Your task to perform on an android device: turn smart compose on in the gmail app Image 0: 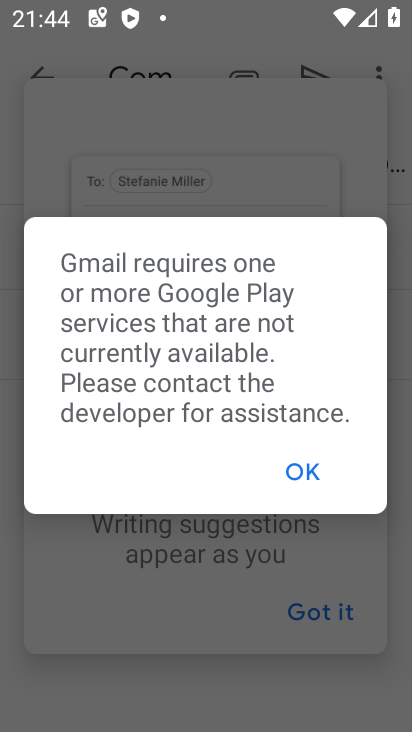
Step 0: press home button
Your task to perform on an android device: turn smart compose on in the gmail app Image 1: 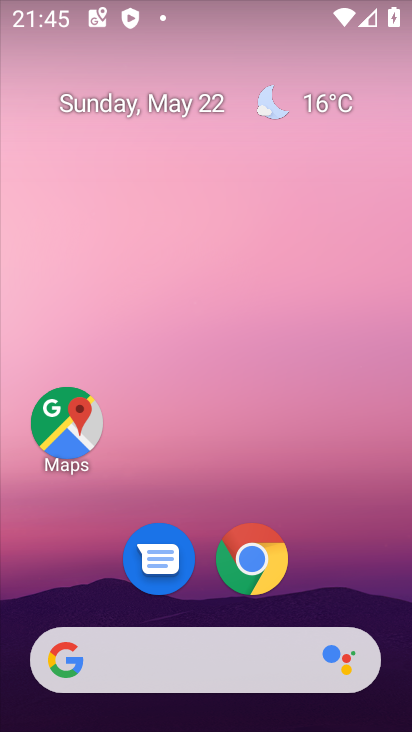
Step 1: drag from (301, 689) to (282, 221)
Your task to perform on an android device: turn smart compose on in the gmail app Image 2: 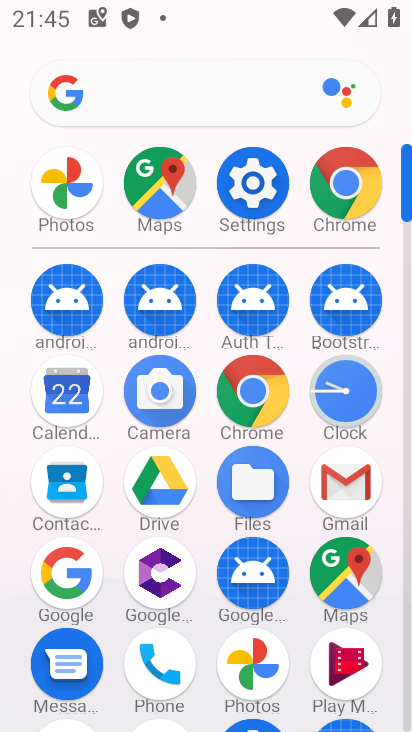
Step 2: click (350, 472)
Your task to perform on an android device: turn smart compose on in the gmail app Image 3: 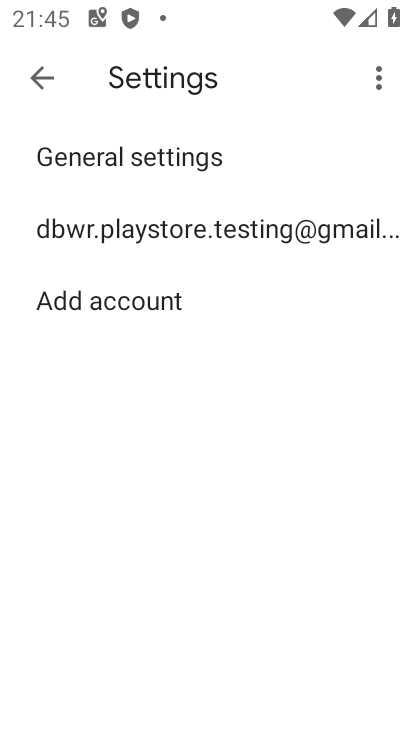
Step 3: click (108, 226)
Your task to perform on an android device: turn smart compose on in the gmail app Image 4: 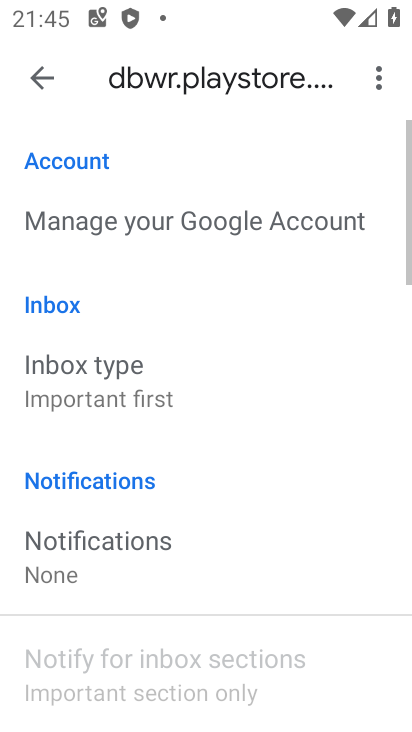
Step 4: drag from (133, 487) to (160, 135)
Your task to perform on an android device: turn smart compose on in the gmail app Image 5: 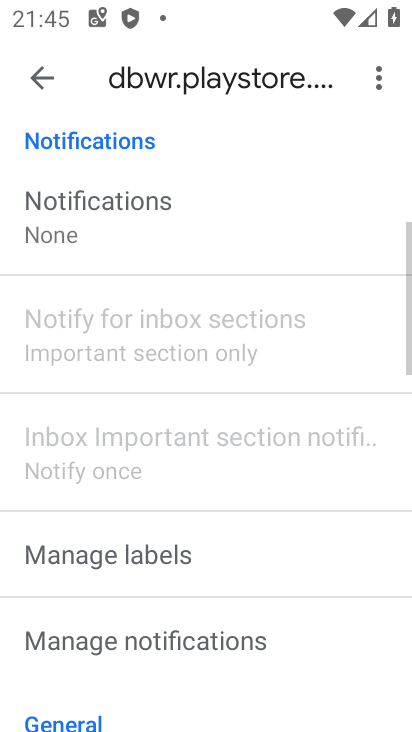
Step 5: drag from (132, 502) to (125, 196)
Your task to perform on an android device: turn smart compose on in the gmail app Image 6: 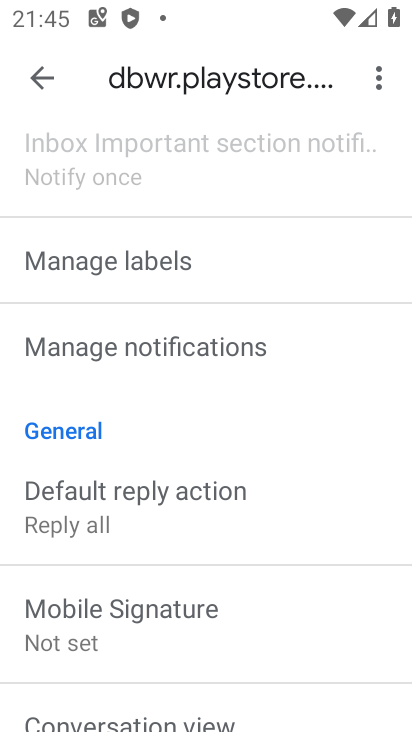
Step 6: drag from (153, 496) to (145, 118)
Your task to perform on an android device: turn smart compose on in the gmail app Image 7: 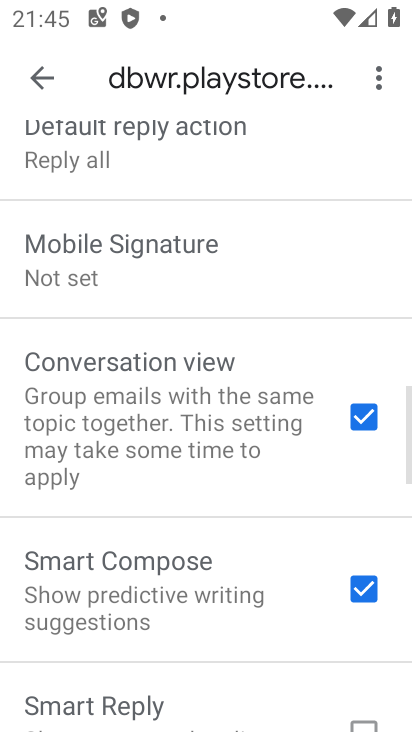
Step 7: drag from (183, 593) to (206, 191)
Your task to perform on an android device: turn smart compose on in the gmail app Image 8: 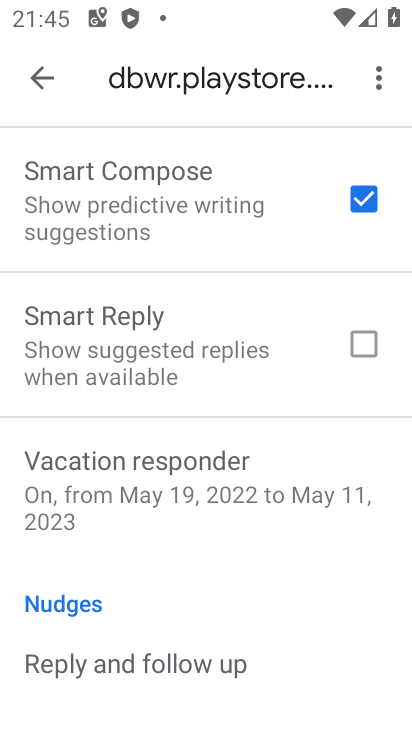
Step 8: click (227, 348)
Your task to perform on an android device: turn smart compose on in the gmail app Image 9: 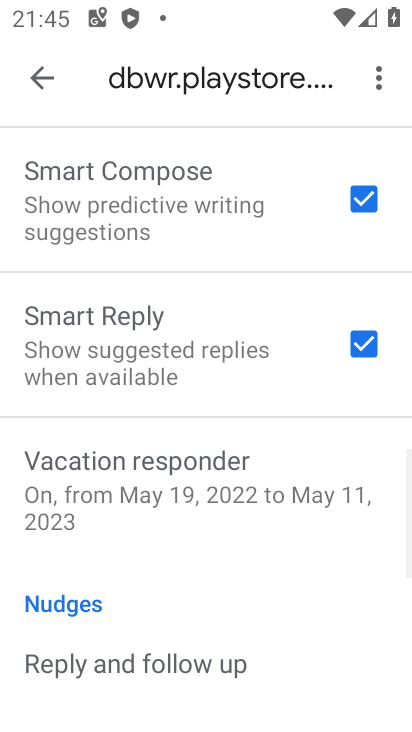
Step 9: task complete